Your task to perform on an android device: What is the recent news? Image 0: 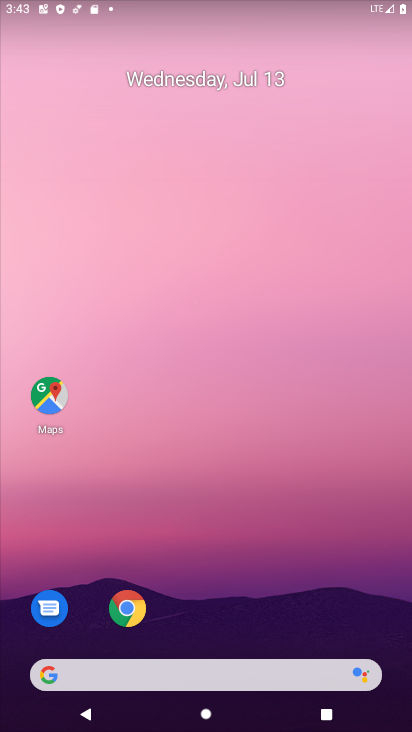
Step 0: drag from (45, 299) to (401, 404)
Your task to perform on an android device: What is the recent news? Image 1: 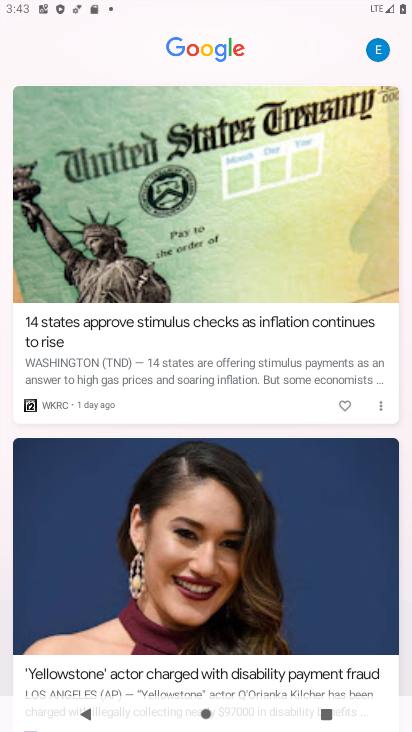
Step 1: task complete